Your task to perform on an android device: Go to network settings Image 0: 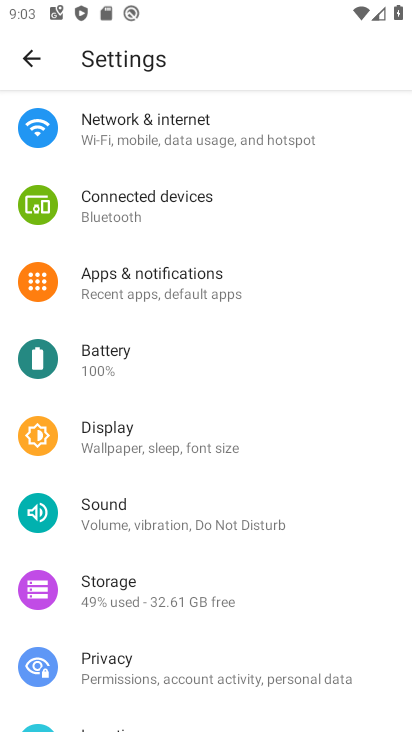
Step 0: drag from (343, 282) to (265, 644)
Your task to perform on an android device: Go to network settings Image 1: 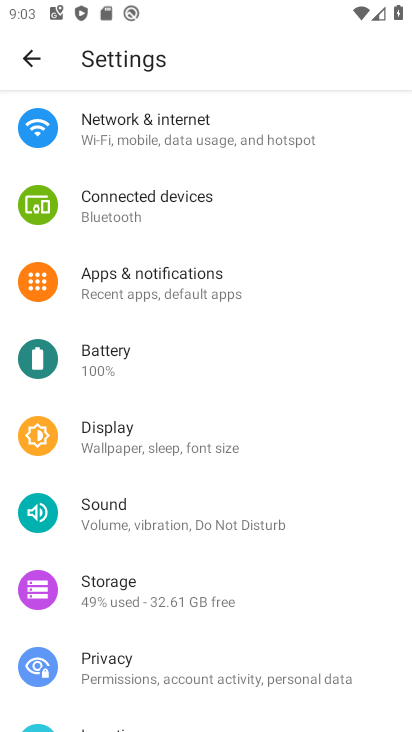
Step 1: click (198, 127)
Your task to perform on an android device: Go to network settings Image 2: 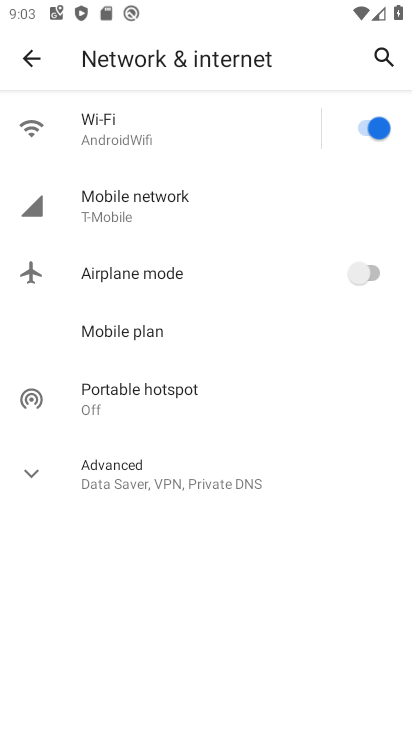
Step 2: click (1, 468)
Your task to perform on an android device: Go to network settings Image 3: 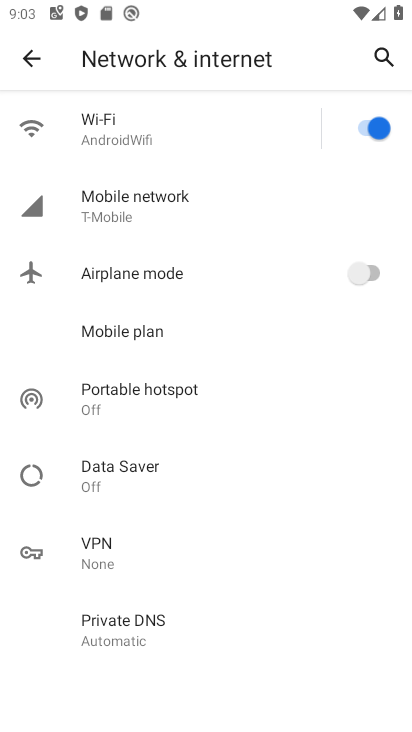
Step 3: task complete